Your task to perform on an android device: Go to accessibility settings Image 0: 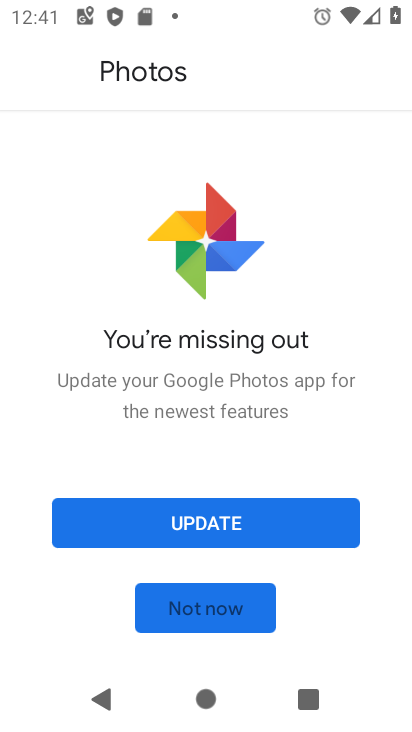
Step 0: press home button
Your task to perform on an android device: Go to accessibility settings Image 1: 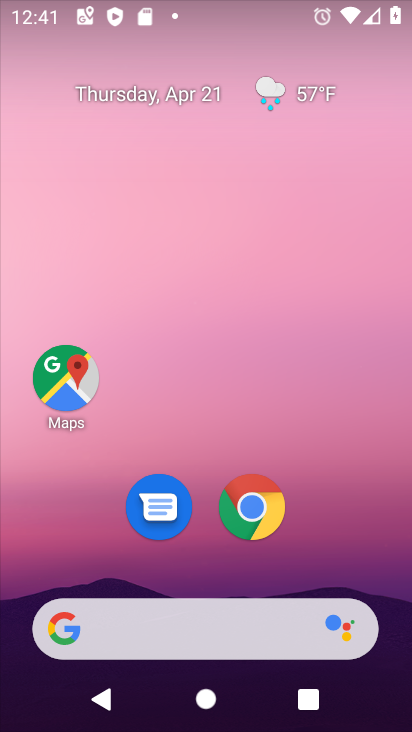
Step 1: drag from (207, 449) to (243, 60)
Your task to perform on an android device: Go to accessibility settings Image 2: 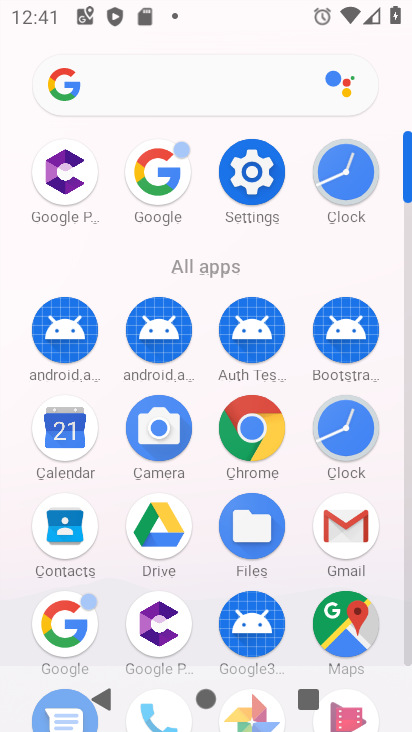
Step 2: click (252, 172)
Your task to perform on an android device: Go to accessibility settings Image 3: 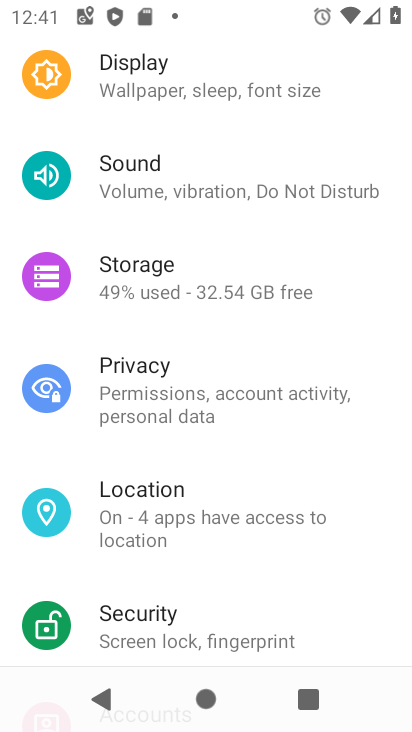
Step 3: drag from (225, 466) to (260, 325)
Your task to perform on an android device: Go to accessibility settings Image 4: 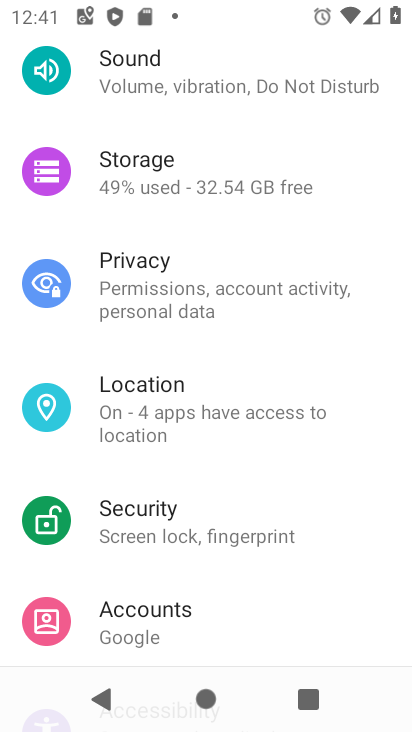
Step 4: drag from (222, 461) to (233, 320)
Your task to perform on an android device: Go to accessibility settings Image 5: 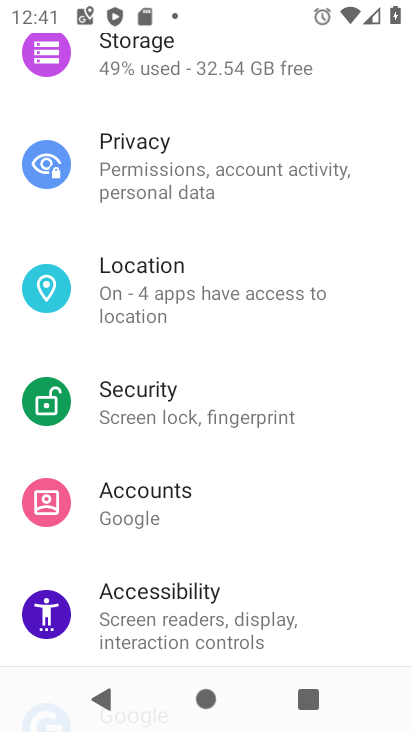
Step 5: drag from (215, 380) to (235, 249)
Your task to perform on an android device: Go to accessibility settings Image 6: 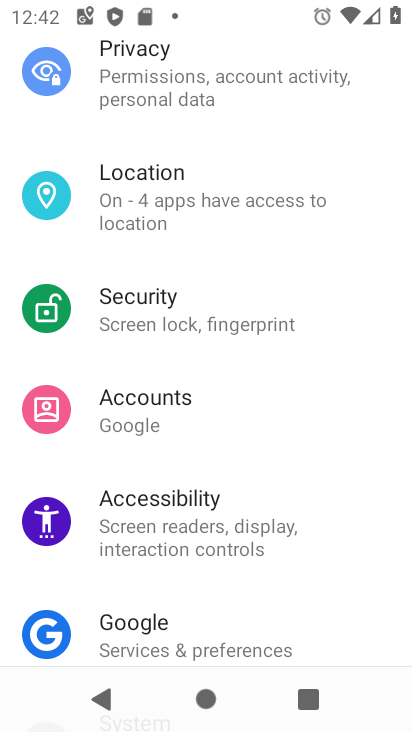
Step 6: drag from (248, 392) to (278, 253)
Your task to perform on an android device: Go to accessibility settings Image 7: 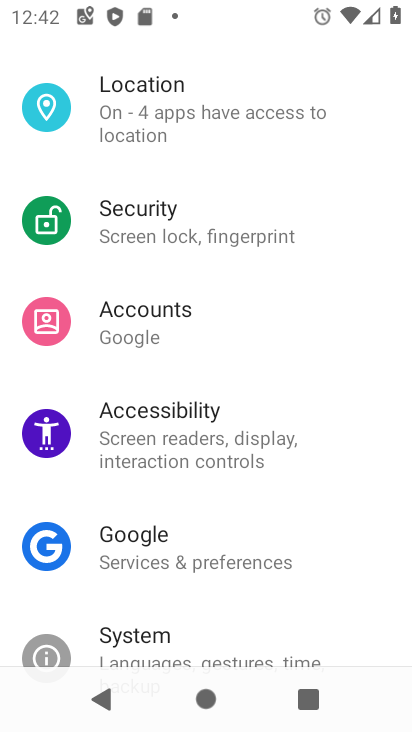
Step 7: drag from (212, 365) to (256, 200)
Your task to perform on an android device: Go to accessibility settings Image 8: 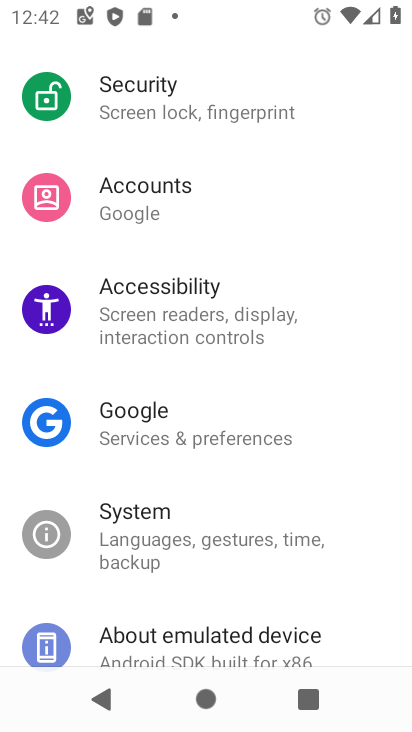
Step 8: drag from (212, 384) to (269, 218)
Your task to perform on an android device: Go to accessibility settings Image 9: 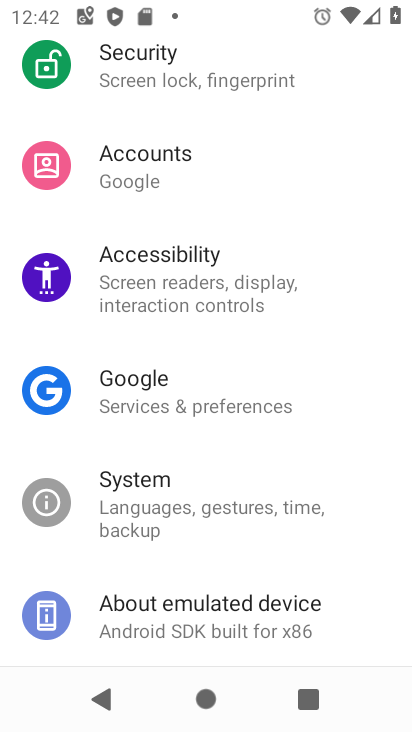
Step 9: drag from (213, 442) to (282, 287)
Your task to perform on an android device: Go to accessibility settings Image 10: 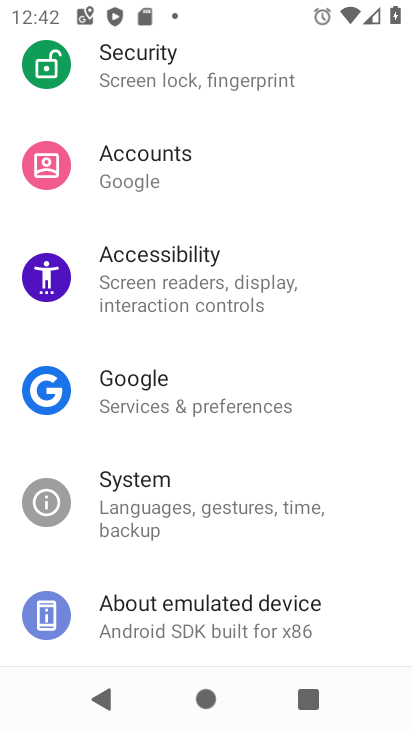
Step 10: click (182, 258)
Your task to perform on an android device: Go to accessibility settings Image 11: 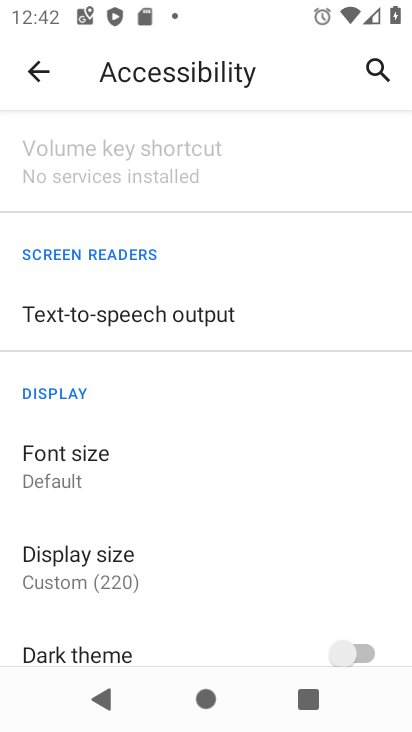
Step 11: task complete